Your task to perform on an android device: all mails in gmail Image 0: 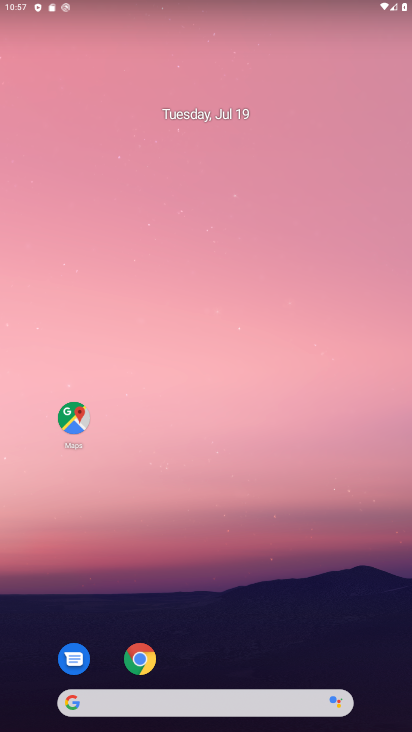
Step 0: drag from (279, 630) to (252, 193)
Your task to perform on an android device: all mails in gmail Image 1: 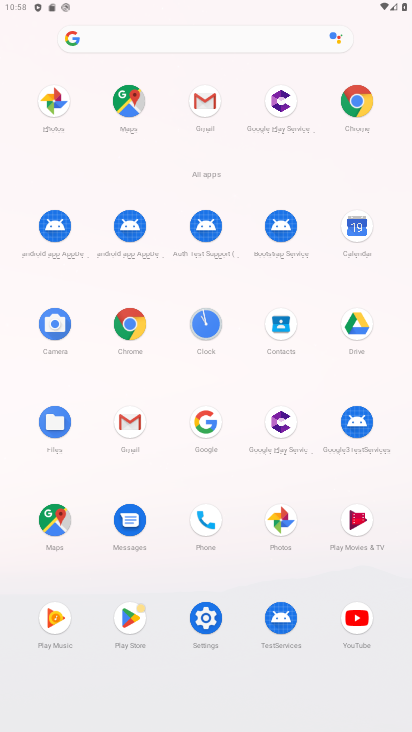
Step 1: click (136, 419)
Your task to perform on an android device: all mails in gmail Image 2: 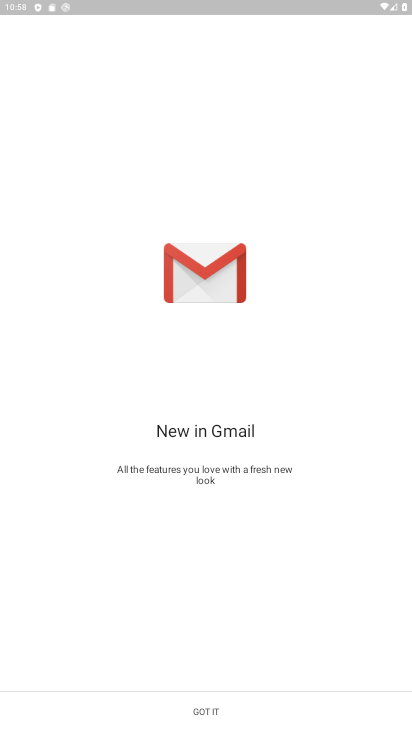
Step 2: click (261, 719)
Your task to perform on an android device: all mails in gmail Image 3: 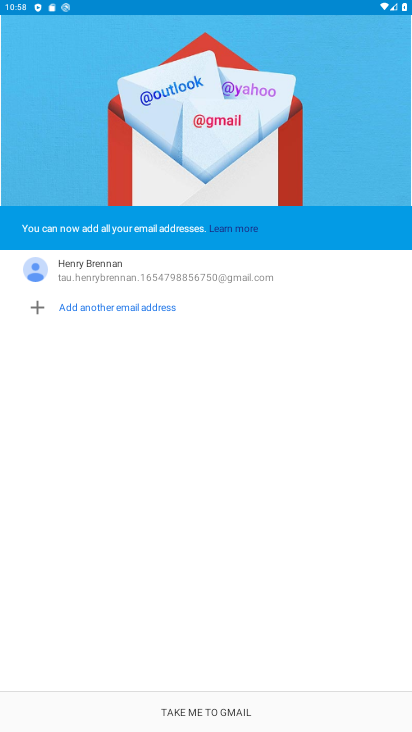
Step 3: click (253, 713)
Your task to perform on an android device: all mails in gmail Image 4: 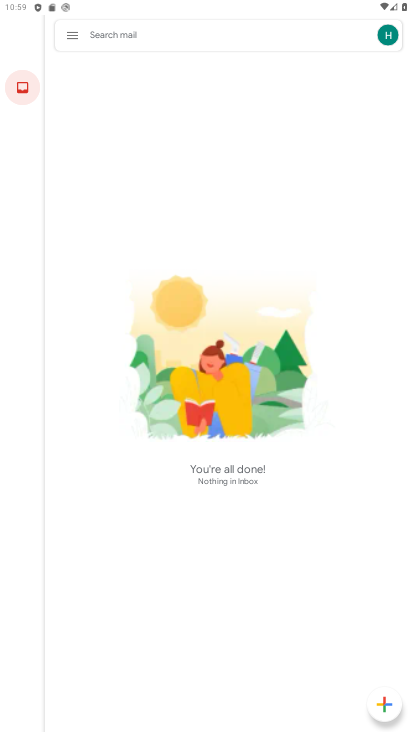
Step 4: click (69, 32)
Your task to perform on an android device: all mails in gmail Image 5: 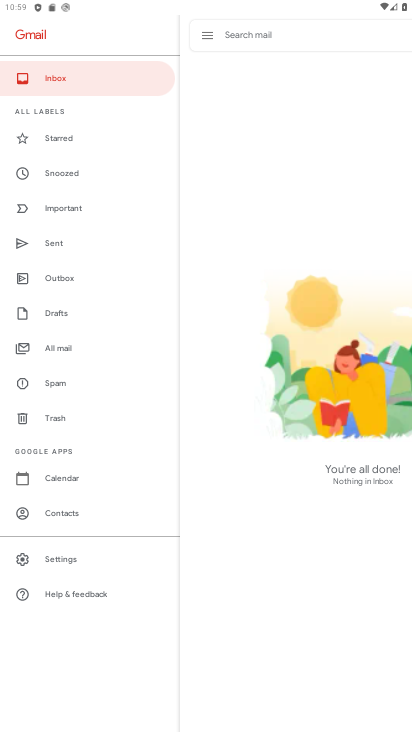
Step 5: click (88, 345)
Your task to perform on an android device: all mails in gmail Image 6: 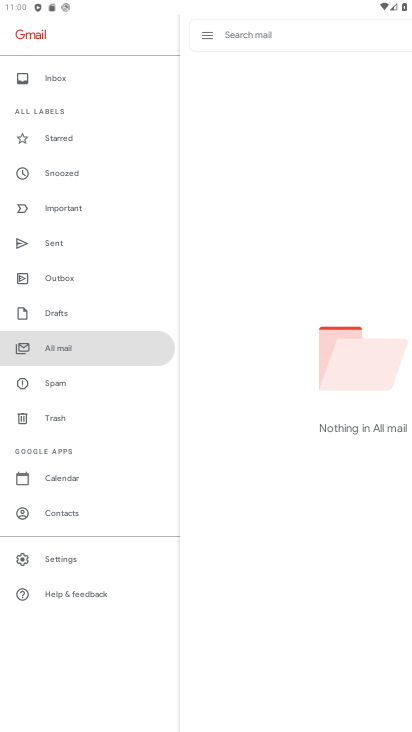
Step 6: task complete